Your task to perform on an android device: Is it going to rain this weekend? Image 0: 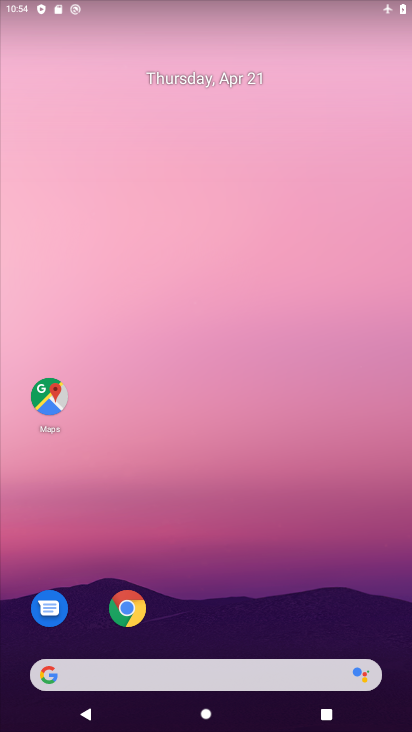
Step 0: click (121, 607)
Your task to perform on an android device: Is it going to rain this weekend? Image 1: 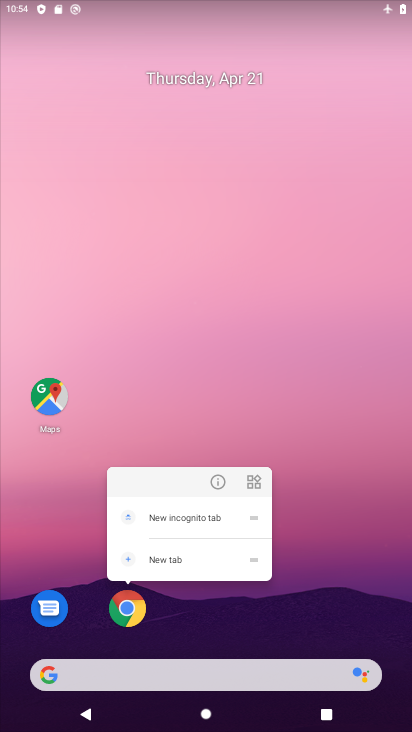
Step 1: click (216, 485)
Your task to perform on an android device: Is it going to rain this weekend? Image 2: 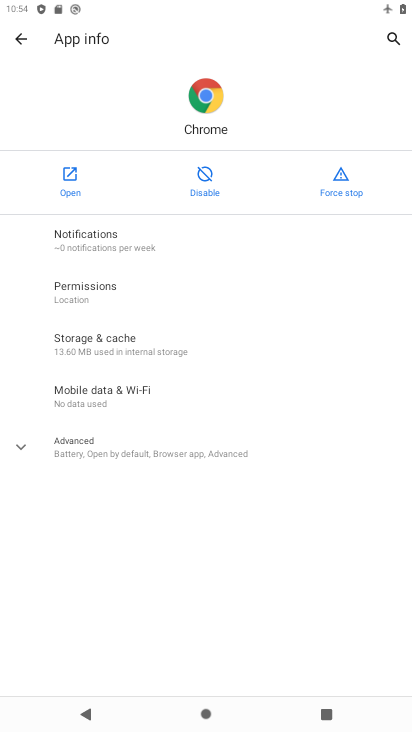
Step 2: click (58, 184)
Your task to perform on an android device: Is it going to rain this weekend? Image 3: 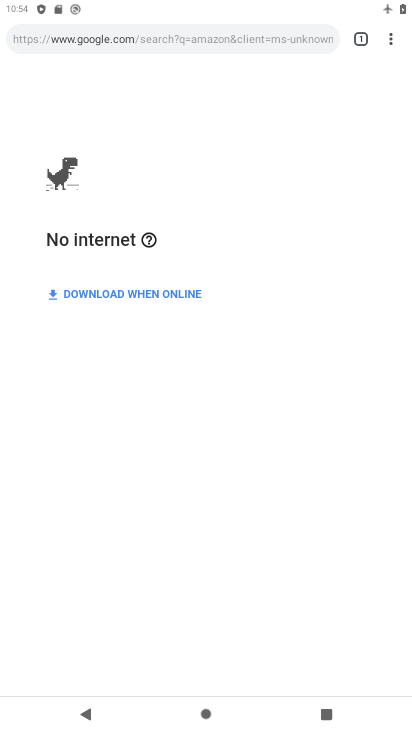
Step 3: task complete